Your task to perform on an android device: toggle notification dots Image 0: 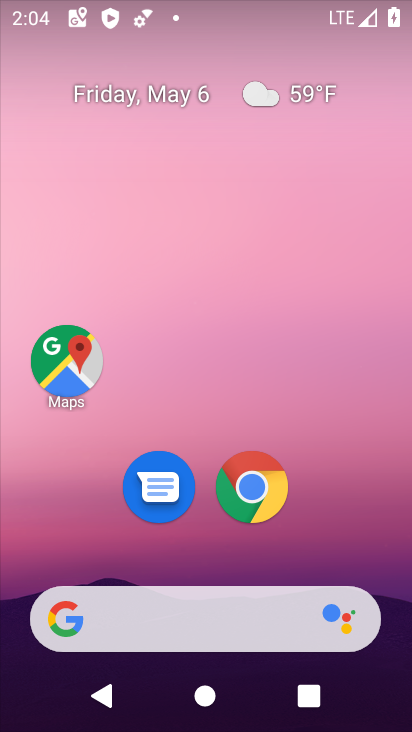
Step 0: drag from (251, 603) to (276, 223)
Your task to perform on an android device: toggle notification dots Image 1: 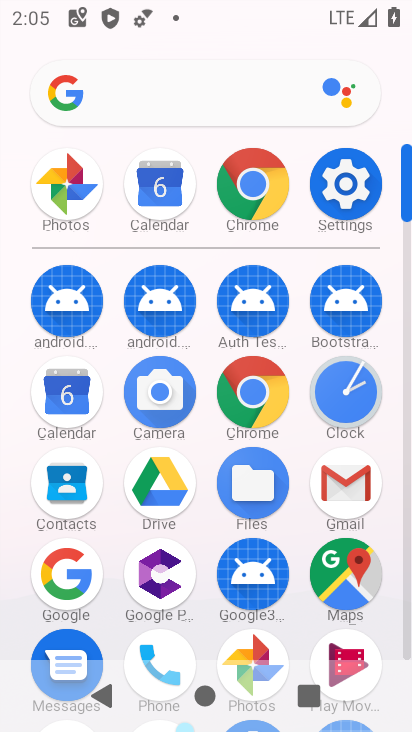
Step 1: click (350, 194)
Your task to perform on an android device: toggle notification dots Image 2: 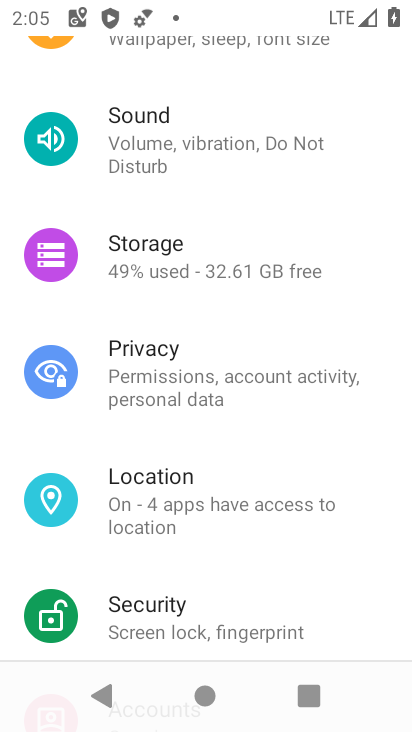
Step 2: drag from (260, 280) to (173, 647)
Your task to perform on an android device: toggle notification dots Image 3: 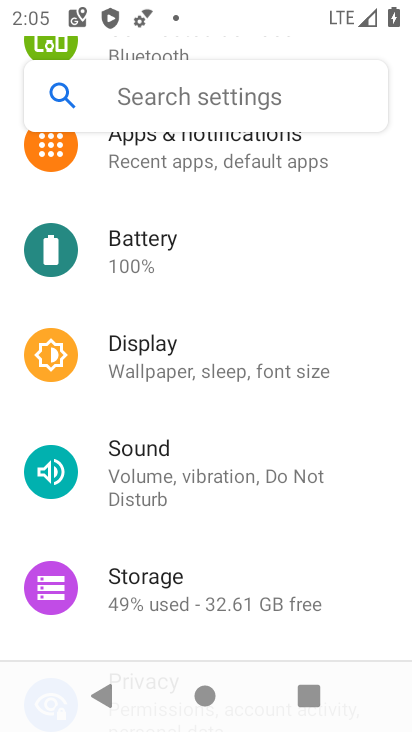
Step 3: drag from (267, 303) to (223, 548)
Your task to perform on an android device: toggle notification dots Image 4: 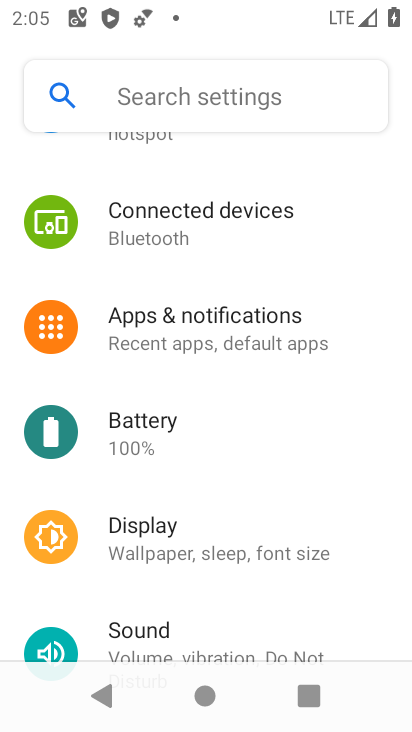
Step 4: click (295, 339)
Your task to perform on an android device: toggle notification dots Image 5: 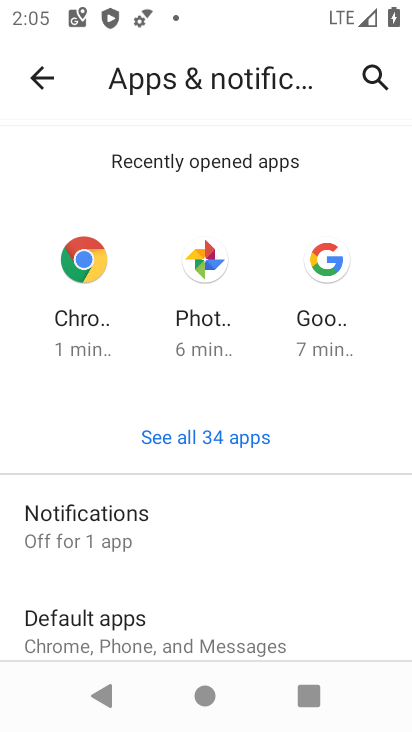
Step 5: click (213, 521)
Your task to perform on an android device: toggle notification dots Image 6: 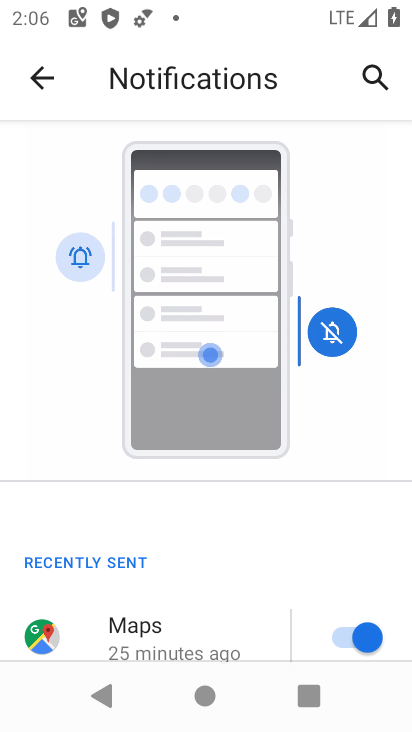
Step 6: drag from (200, 600) to (263, 260)
Your task to perform on an android device: toggle notification dots Image 7: 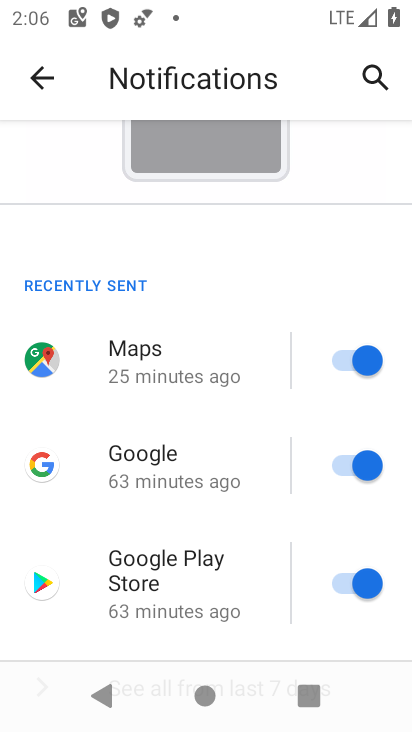
Step 7: drag from (167, 509) to (226, 164)
Your task to perform on an android device: toggle notification dots Image 8: 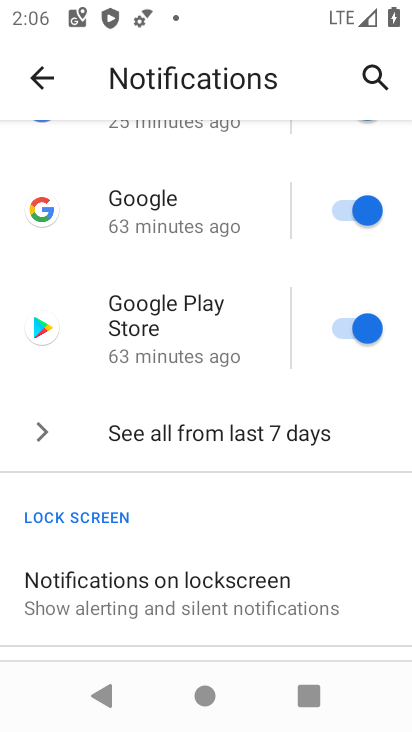
Step 8: click (195, 594)
Your task to perform on an android device: toggle notification dots Image 9: 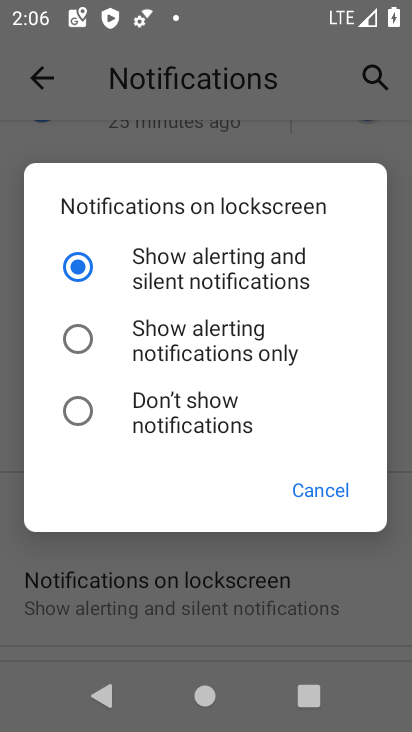
Step 9: click (318, 490)
Your task to perform on an android device: toggle notification dots Image 10: 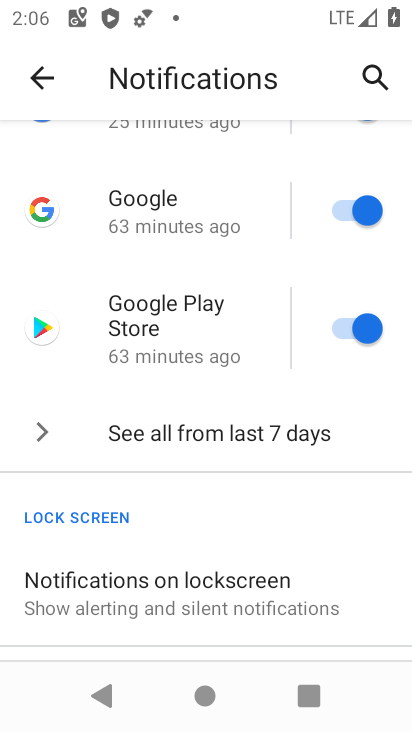
Step 10: drag from (210, 496) to (283, 166)
Your task to perform on an android device: toggle notification dots Image 11: 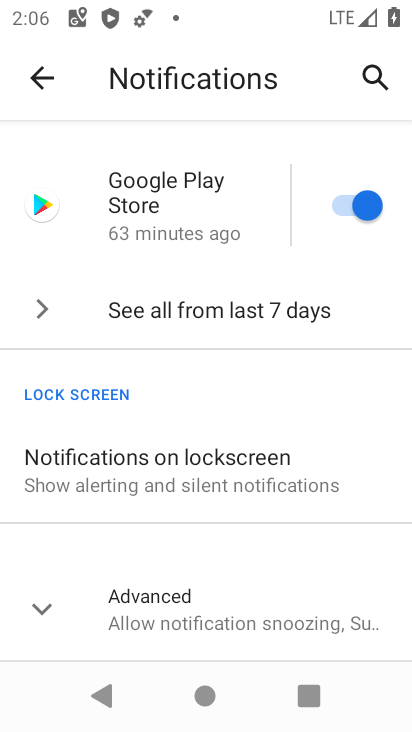
Step 11: drag from (249, 516) to (252, 275)
Your task to perform on an android device: toggle notification dots Image 12: 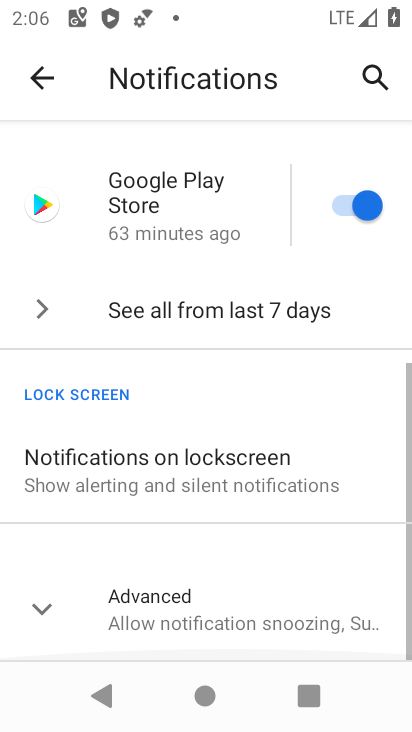
Step 12: click (243, 621)
Your task to perform on an android device: toggle notification dots Image 13: 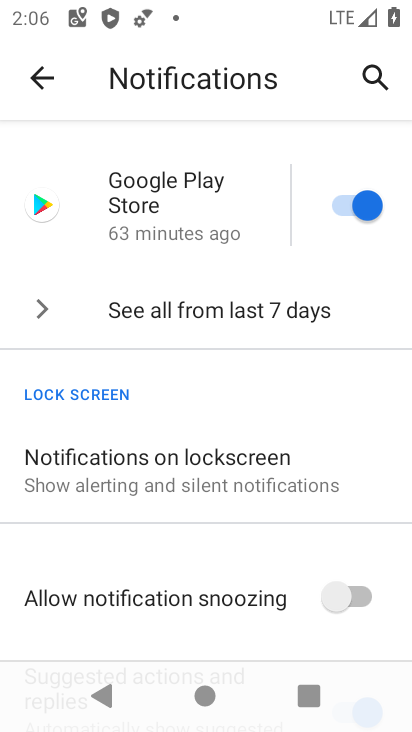
Step 13: drag from (195, 558) to (217, 265)
Your task to perform on an android device: toggle notification dots Image 14: 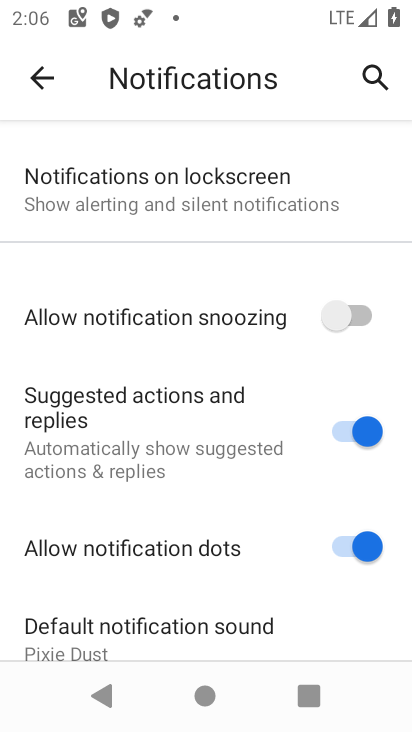
Step 14: drag from (238, 609) to (230, 378)
Your task to perform on an android device: toggle notification dots Image 15: 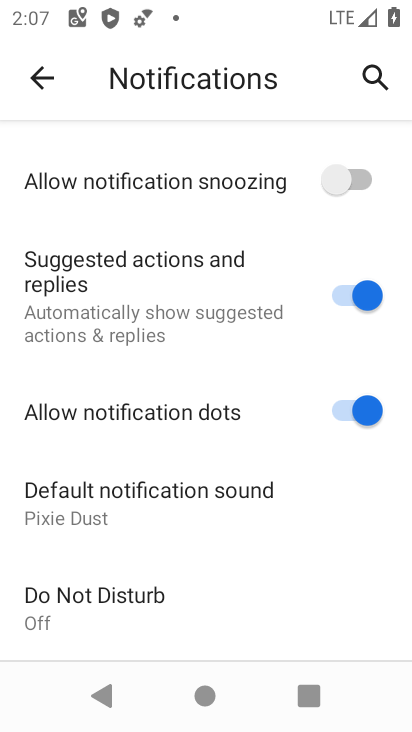
Step 15: click (335, 415)
Your task to perform on an android device: toggle notification dots Image 16: 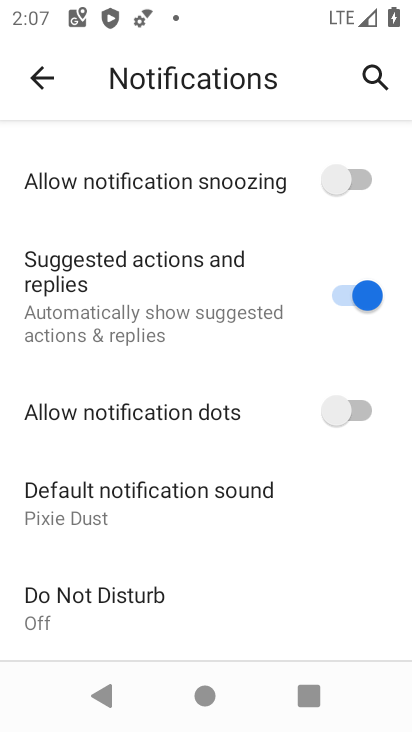
Step 16: task complete